Your task to perform on an android device: Set the phone to "Do not disturb". Image 0: 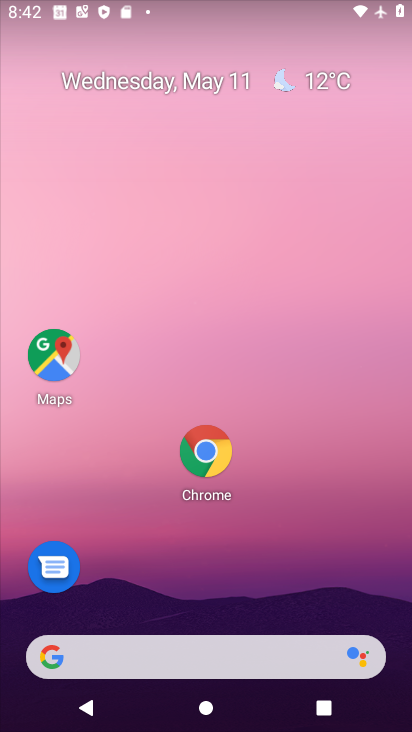
Step 0: drag from (225, 663) to (346, 121)
Your task to perform on an android device: Set the phone to "Do not disturb". Image 1: 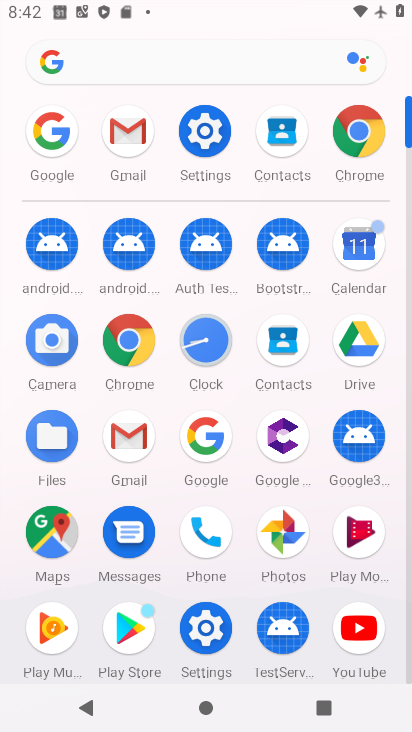
Step 1: click (218, 127)
Your task to perform on an android device: Set the phone to "Do not disturb". Image 2: 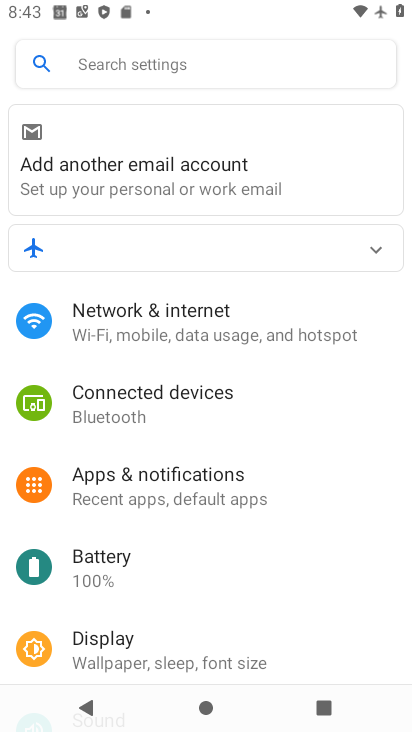
Step 2: drag from (243, 576) to (326, 164)
Your task to perform on an android device: Set the phone to "Do not disturb". Image 3: 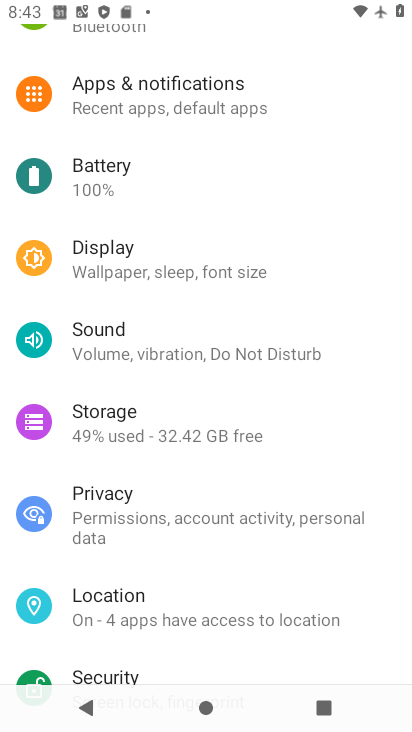
Step 3: click (169, 344)
Your task to perform on an android device: Set the phone to "Do not disturb". Image 4: 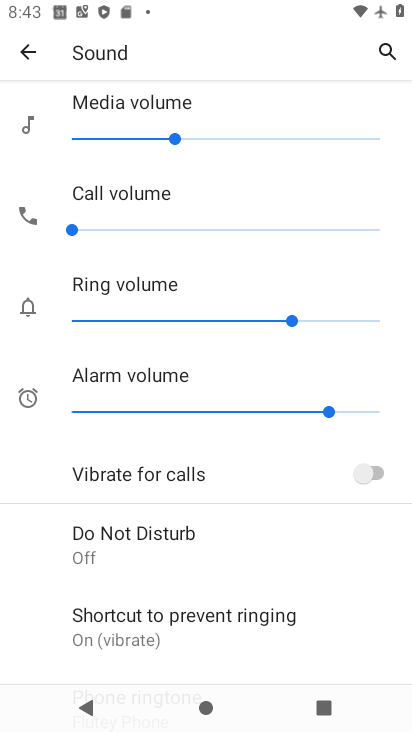
Step 4: click (147, 530)
Your task to perform on an android device: Set the phone to "Do not disturb". Image 5: 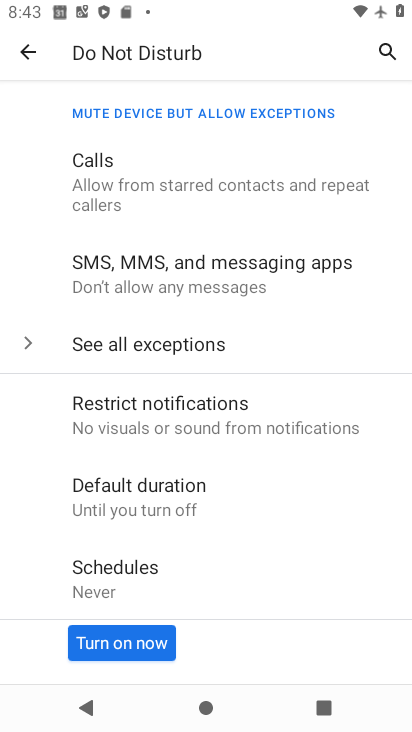
Step 5: click (148, 647)
Your task to perform on an android device: Set the phone to "Do not disturb". Image 6: 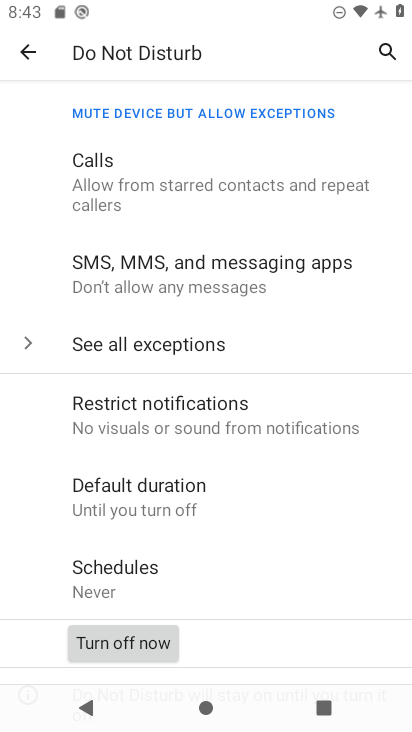
Step 6: task complete